Your task to perform on an android device: change the clock display to show seconds Image 0: 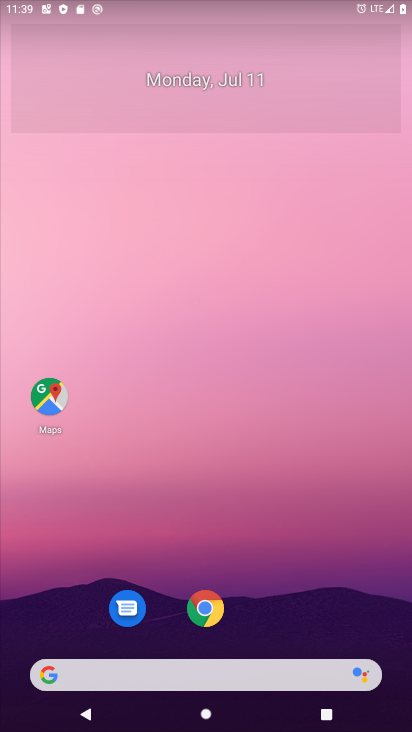
Step 0: drag from (27, 690) to (85, 210)
Your task to perform on an android device: change the clock display to show seconds Image 1: 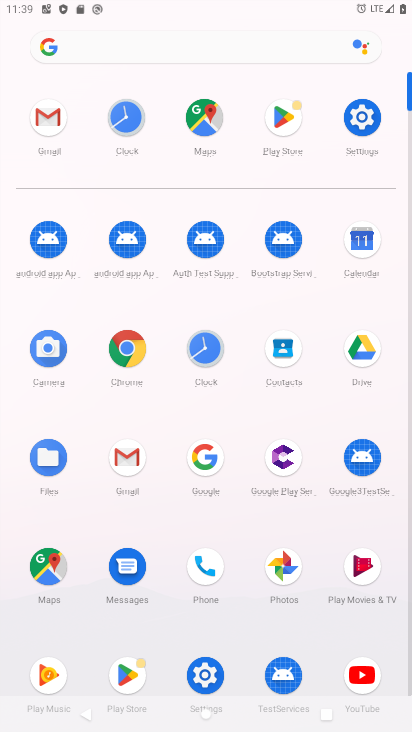
Step 1: click (211, 364)
Your task to perform on an android device: change the clock display to show seconds Image 2: 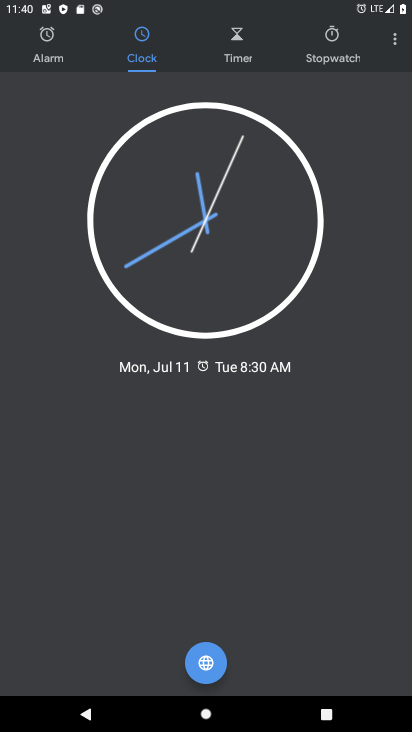
Step 2: click (393, 47)
Your task to perform on an android device: change the clock display to show seconds Image 3: 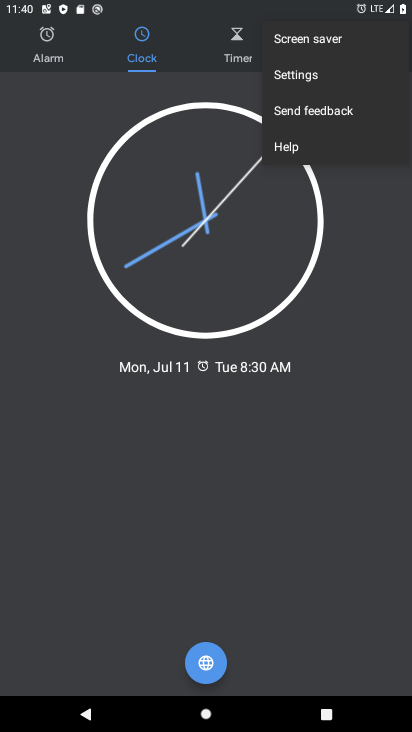
Step 3: click (315, 76)
Your task to perform on an android device: change the clock display to show seconds Image 4: 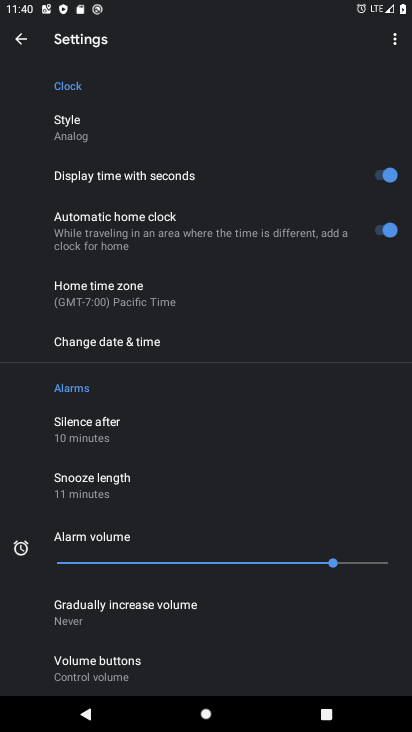
Step 4: click (389, 176)
Your task to perform on an android device: change the clock display to show seconds Image 5: 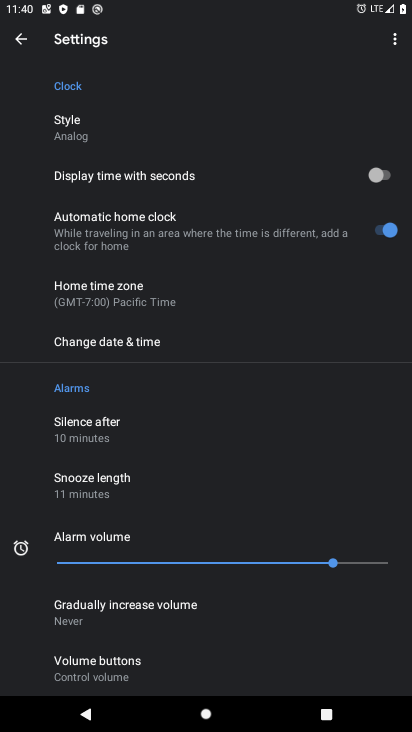
Step 5: task complete